Your task to perform on an android device: see tabs open on other devices in the chrome app Image 0: 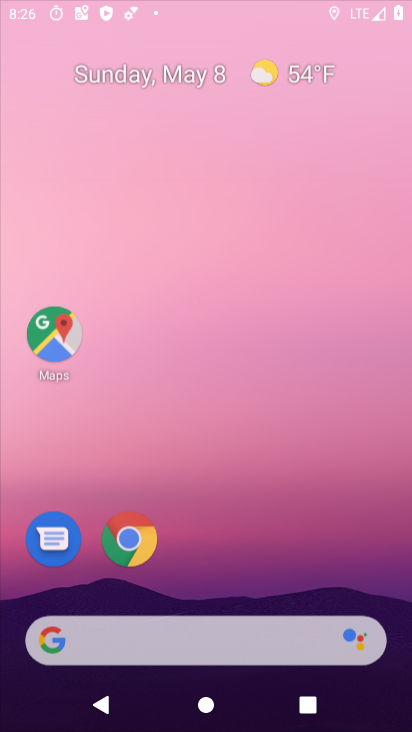
Step 0: press home button
Your task to perform on an android device: see tabs open on other devices in the chrome app Image 1: 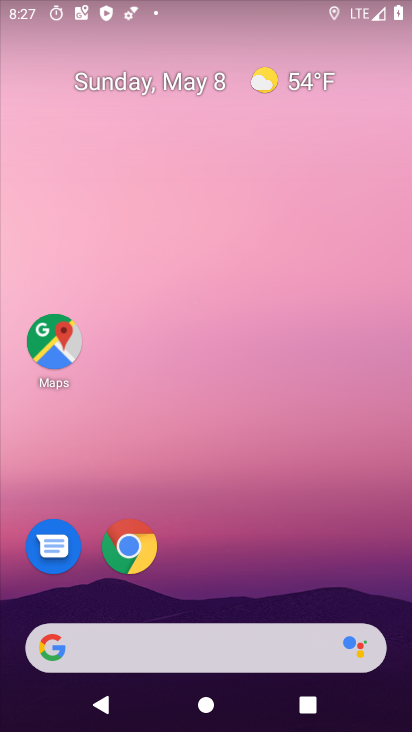
Step 1: click (134, 544)
Your task to perform on an android device: see tabs open on other devices in the chrome app Image 2: 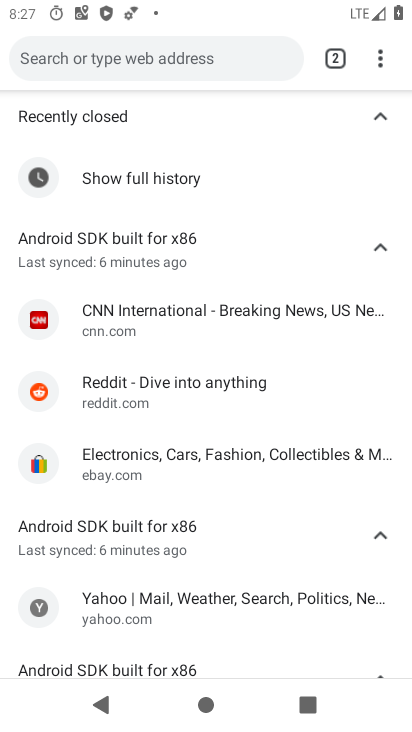
Step 2: click (375, 49)
Your task to perform on an android device: see tabs open on other devices in the chrome app Image 3: 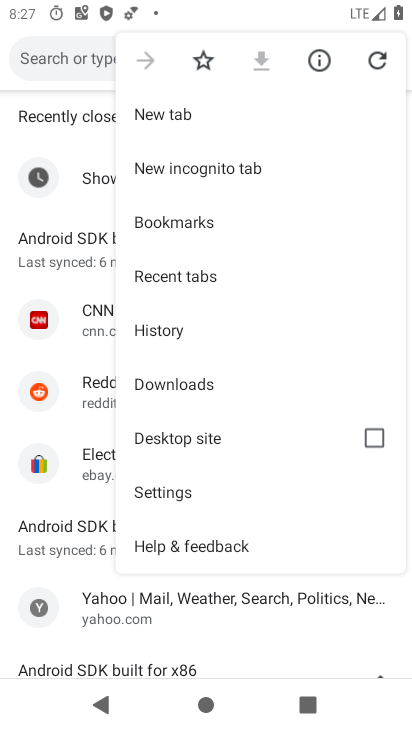
Step 3: click (173, 273)
Your task to perform on an android device: see tabs open on other devices in the chrome app Image 4: 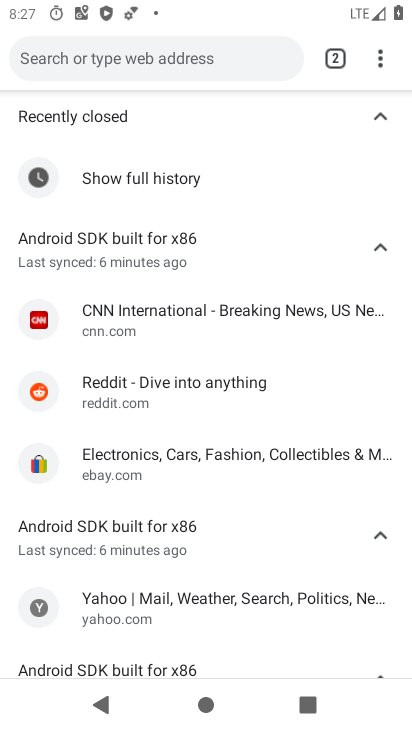
Step 4: task complete